Your task to perform on an android device: clear all cookies in the chrome app Image 0: 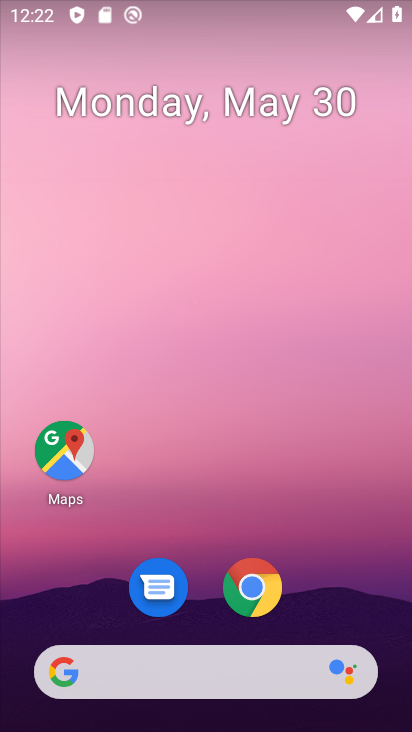
Step 0: click (246, 589)
Your task to perform on an android device: clear all cookies in the chrome app Image 1: 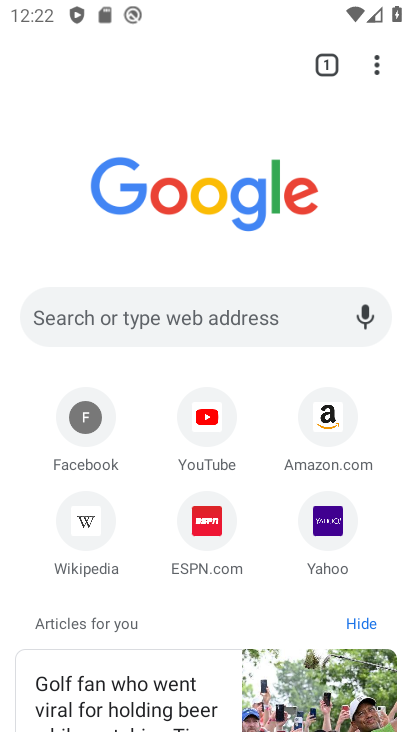
Step 1: click (372, 68)
Your task to perform on an android device: clear all cookies in the chrome app Image 2: 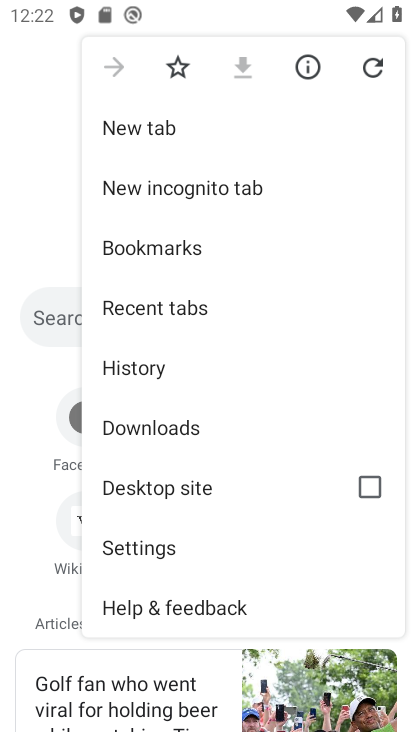
Step 2: click (146, 540)
Your task to perform on an android device: clear all cookies in the chrome app Image 3: 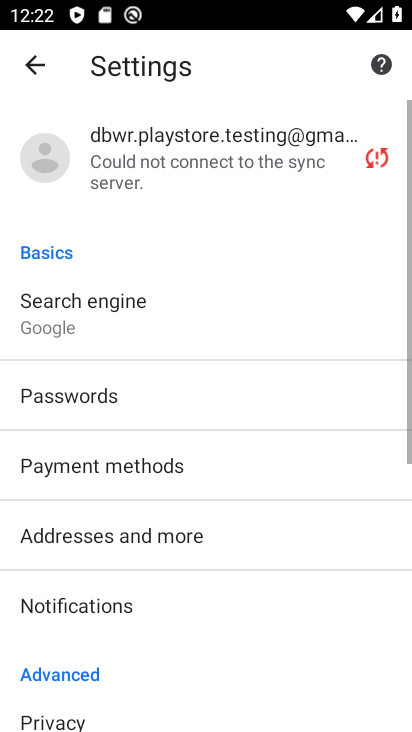
Step 3: drag from (200, 602) to (218, 296)
Your task to perform on an android device: clear all cookies in the chrome app Image 4: 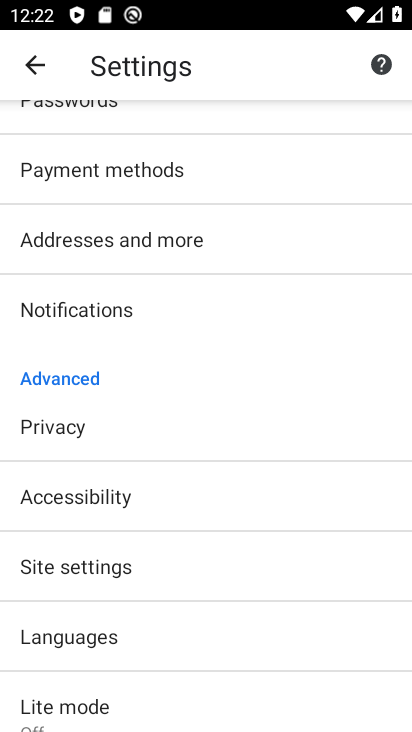
Step 4: click (84, 422)
Your task to perform on an android device: clear all cookies in the chrome app Image 5: 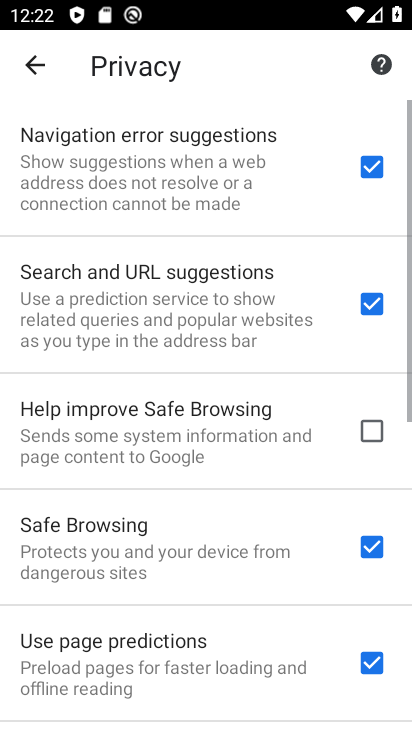
Step 5: drag from (216, 604) to (243, 109)
Your task to perform on an android device: clear all cookies in the chrome app Image 6: 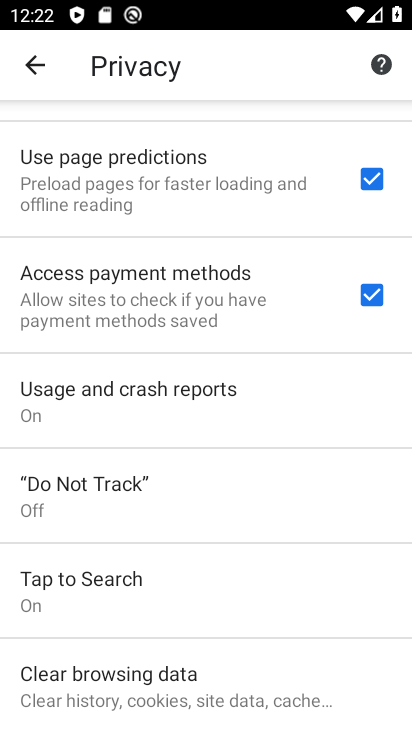
Step 6: click (152, 683)
Your task to perform on an android device: clear all cookies in the chrome app Image 7: 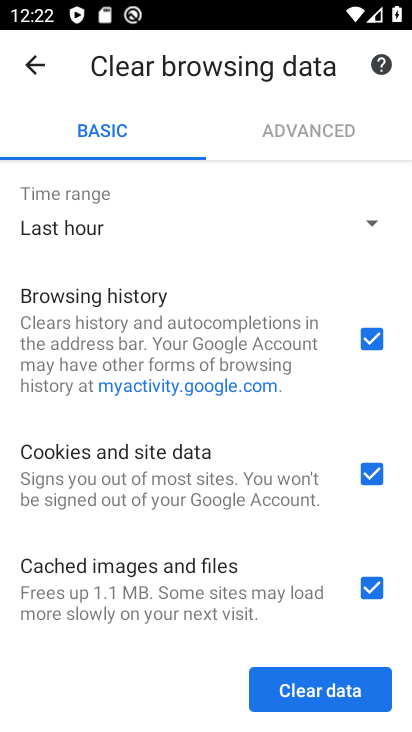
Step 7: click (370, 334)
Your task to perform on an android device: clear all cookies in the chrome app Image 8: 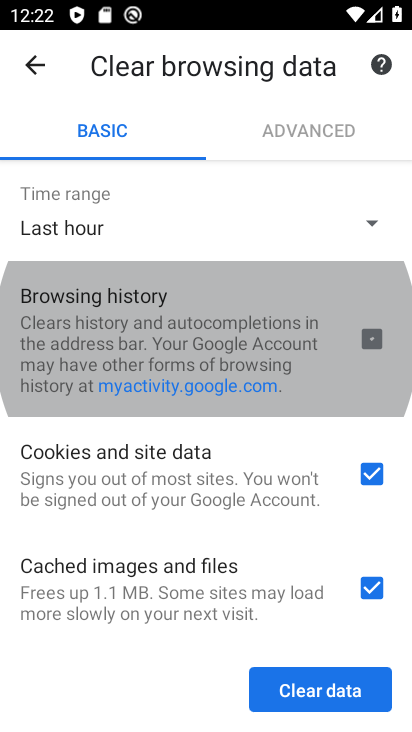
Step 8: click (371, 564)
Your task to perform on an android device: clear all cookies in the chrome app Image 9: 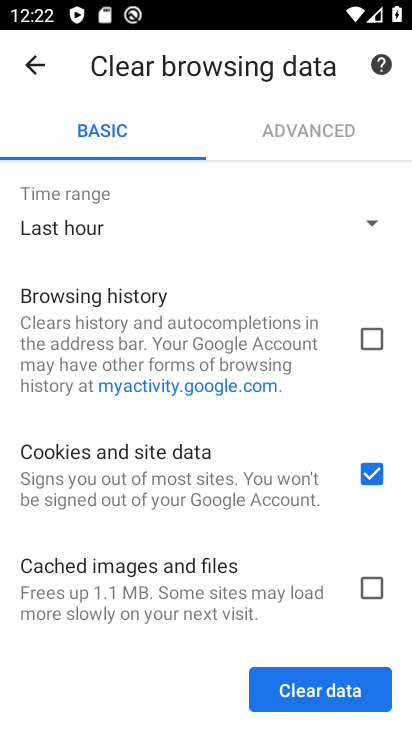
Step 9: click (309, 671)
Your task to perform on an android device: clear all cookies in the chrome app Image 10: 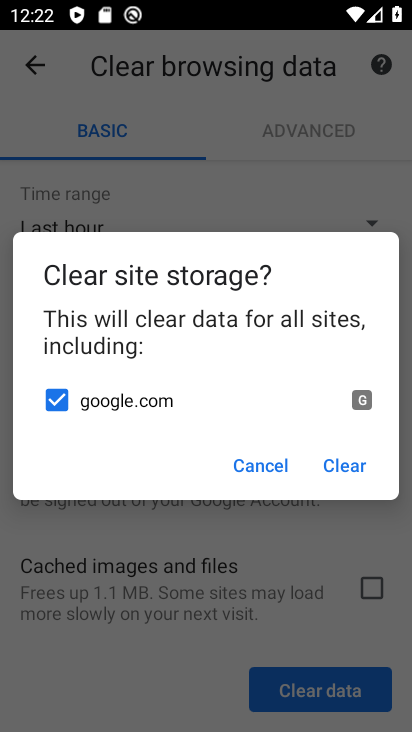
Step 10: click (354, 460)
Your task to perform on an android device: clear all cookies in the chrome app Image 11: 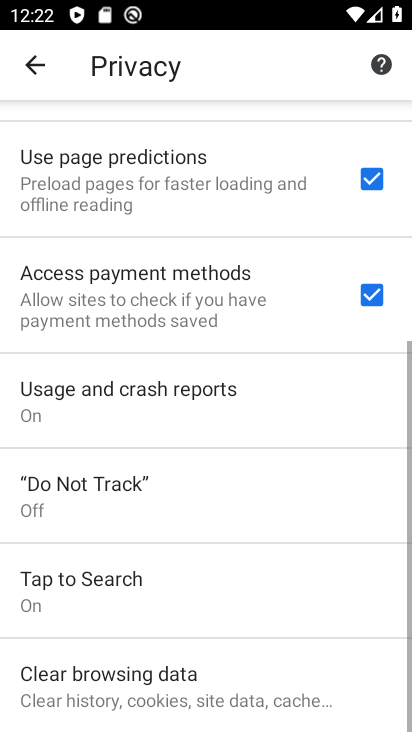
Step 11: task complete